Your task to perform on an android device: Search for vegetarian restaurants on Maps Image 0: 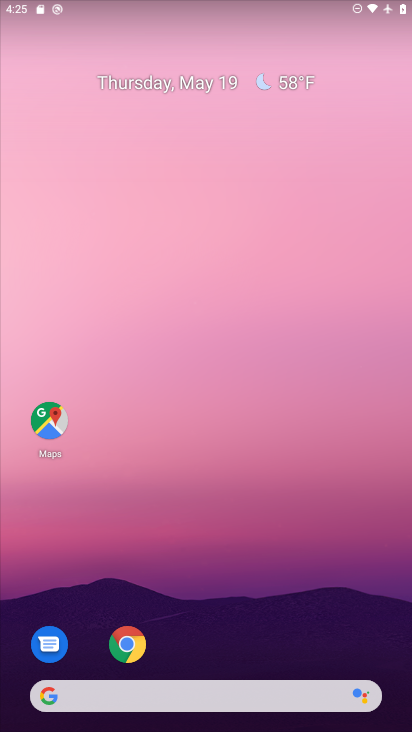
Step 0: drag from (254, 577) to (241, 9)
Your task to perform on an android device: Search for vegetarian restaurants on Maps Image 1: 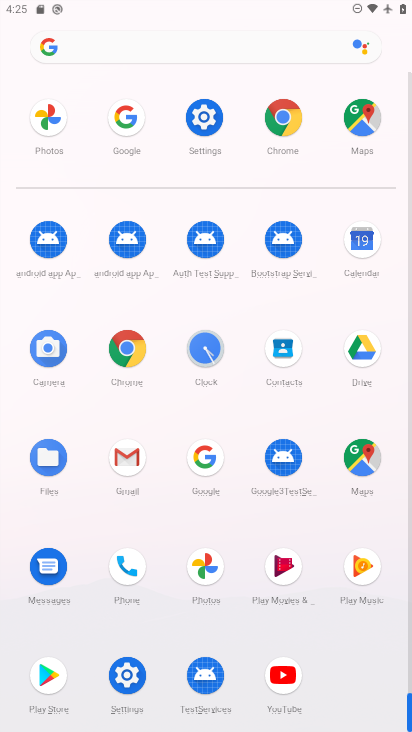
Step 1: drag from (12, 567) to (19, 229)
Your task to perform on an android device: Search for vegetarian restaurants on Maps Image 2: 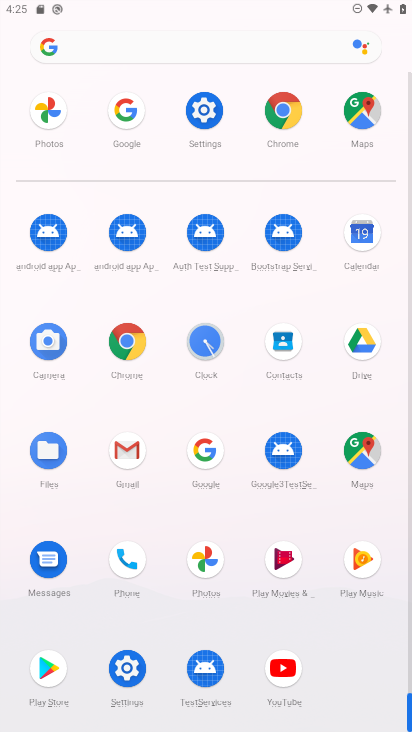
Step 2: drag from (12, 277) to (8, 221)
Your task to perform on an android device: Search for vegetarian restaurants on Maps Image 3: 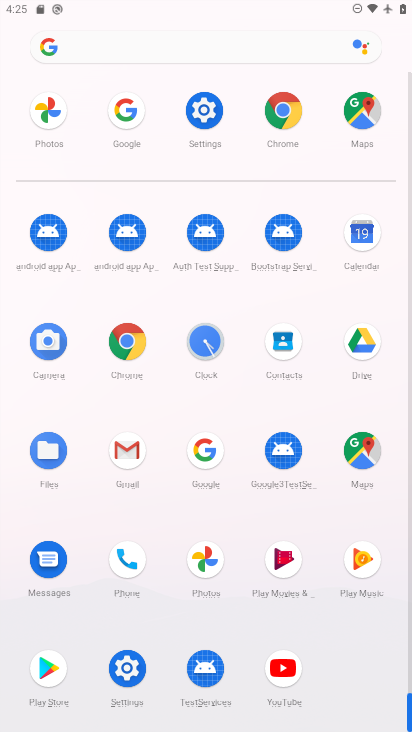
Step 3: click (360, 445)
Your task to perform on an android device: Search for vegetarian restaurants on Maps Image 4: 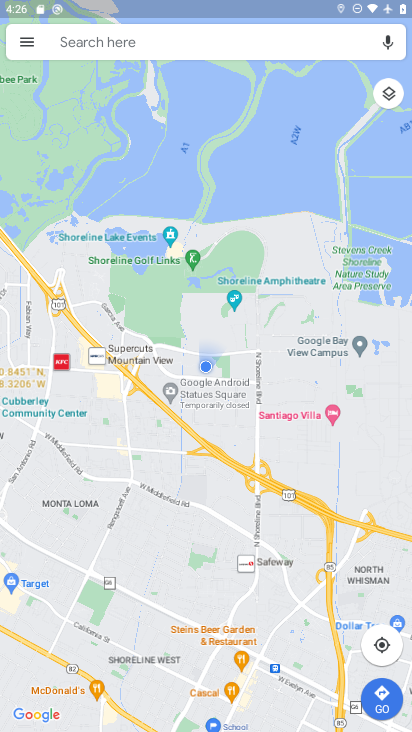
Step 4: click (112, 40)
Your task to perform on an android device: Search for vegetarian restaurants on Maps Image 5: 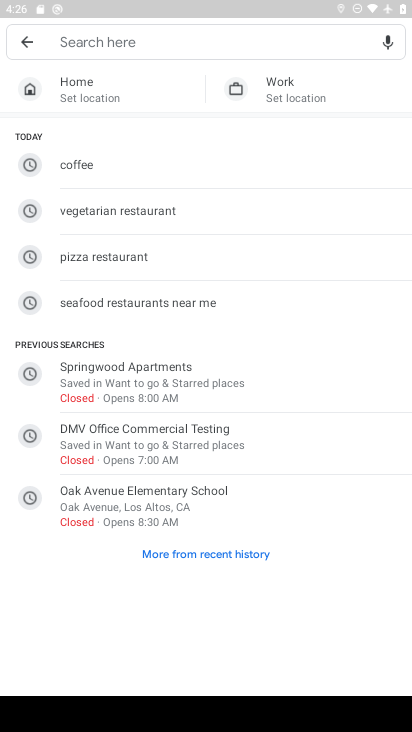
Step 5: click (196, 219)
Your task to perform on an android device: Search for vegetarian restaurants on Maps Image 6: 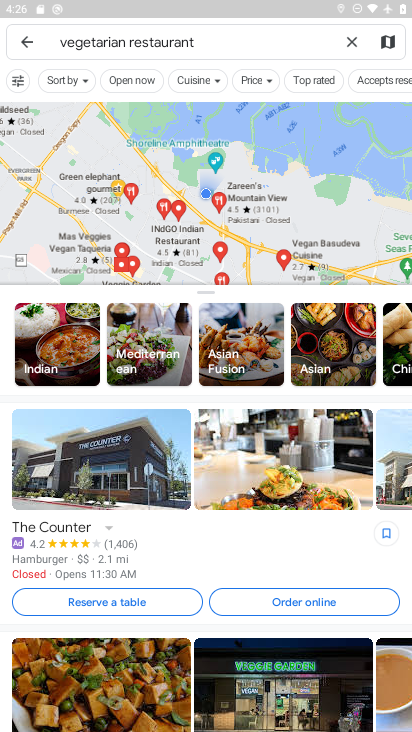
Step 6: task complete